Your task to perform on an android device: change keyboard looks Image 0: 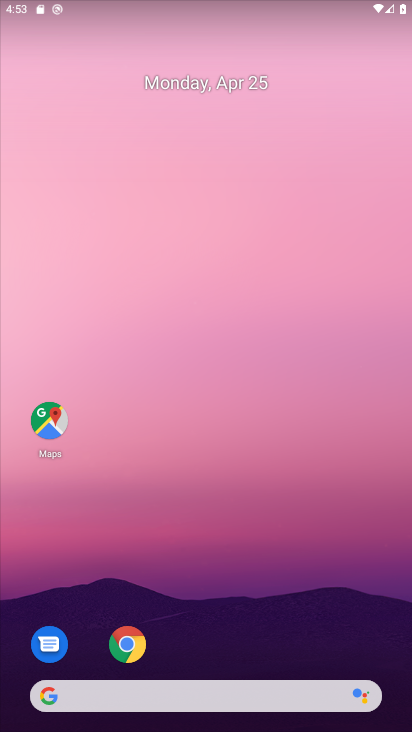
Step 0: drag from (249, 595) to (184, 68)
Your task to perform on an android device: change keyboard looks Image 1: 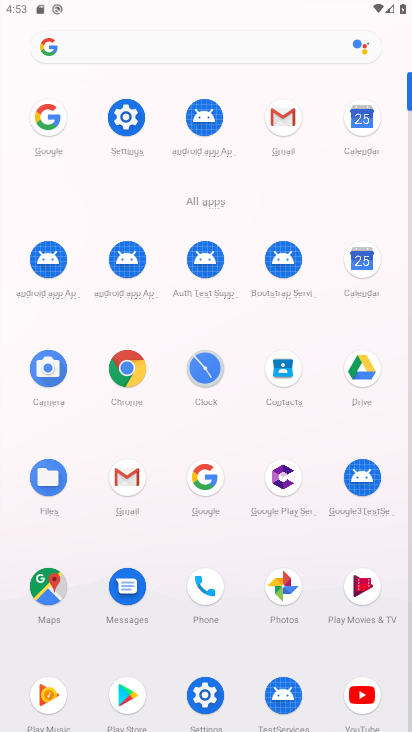
Step 1: click (124, 145)
Your task to perform on an android device: change keyboard looks Image 2: 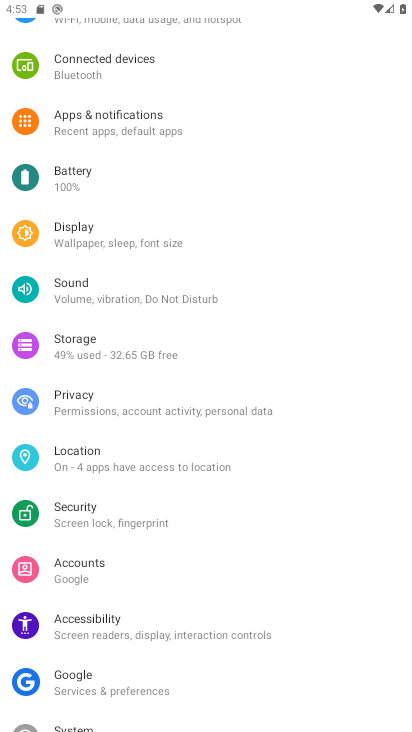
Step 2: drag from (206, 664) to (205, 132)
Your task to perform on an android device: change keyboard looks Image 3: 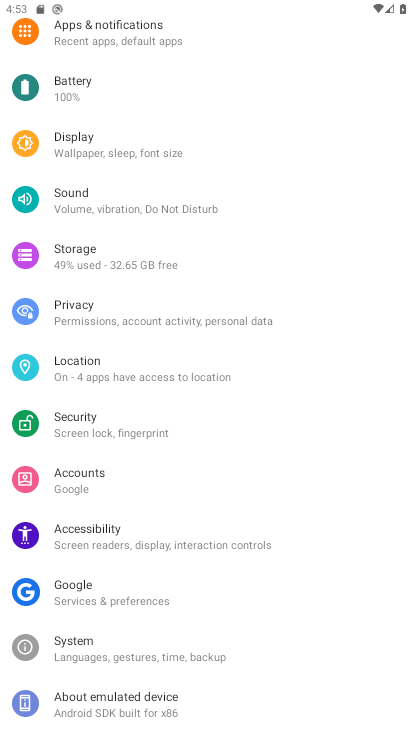
Step 3: click (106, 655)
Your task to perform on an android device: change keyboard looks Image 4: 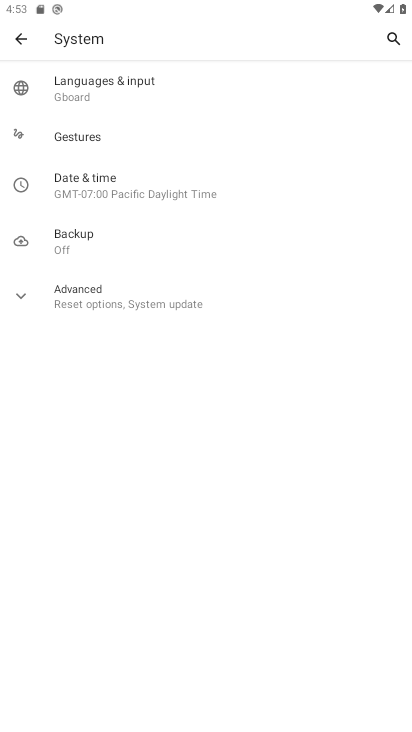
Step 4: click (167, 100)
Your task to perform on an android device: change keyboard looks Image 5: 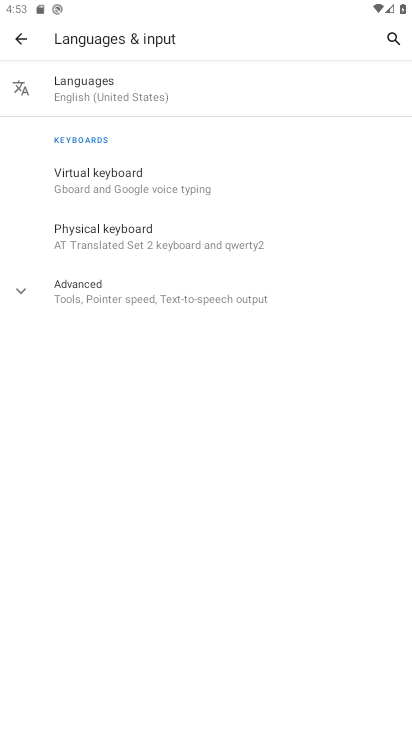
Step 5: click (127, 182)
Your task to perform on an android device: change keyboard looks Image 6: 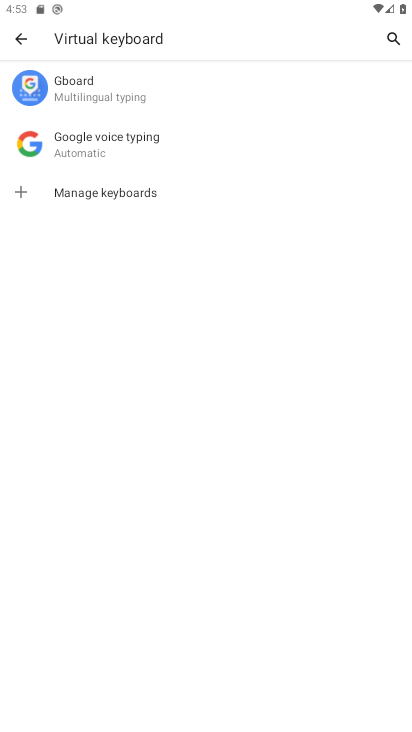
Step 6: click (174, 78)
Your task to perform on an android device: change keyboard looks Image 7: 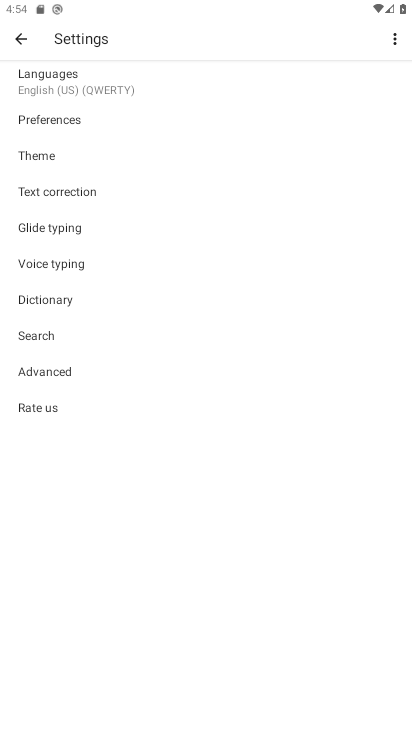
Step 7: click (81, 163)
Your task to perform on an android device: change keyboard looks Image 8: 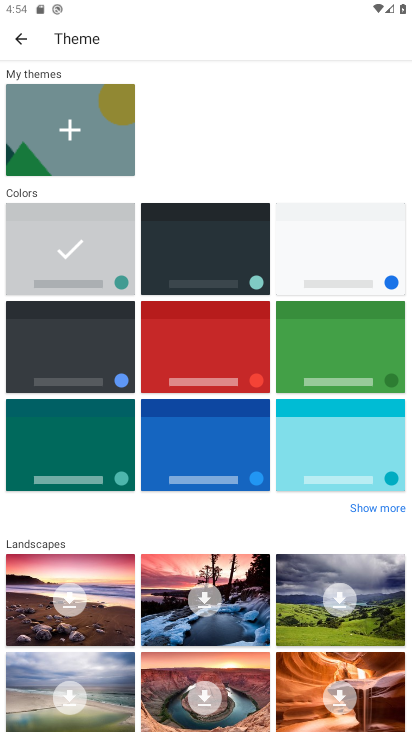
Step 8: click (199, 260)
Your task to perform on an android device: change keyboard looks Image 9: 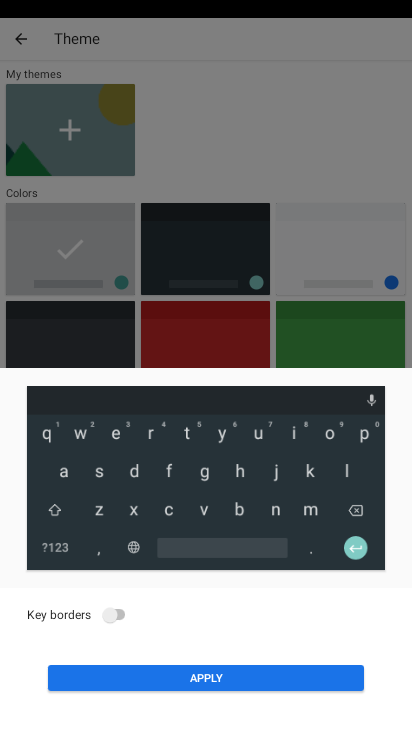
Step 9: click (200, 670)
Your task to perform on an android device: change keyboard looks Image 10: 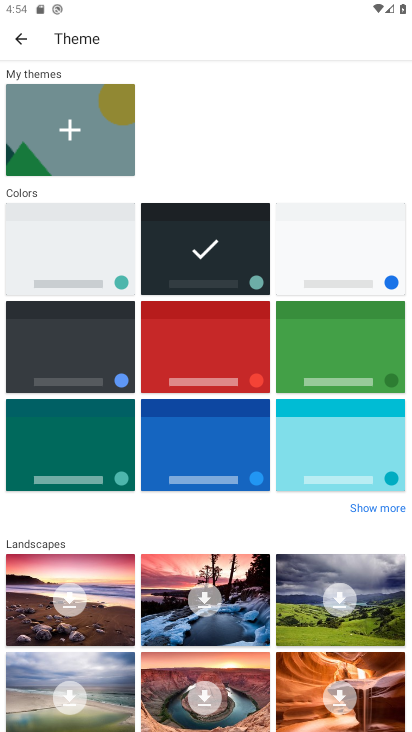
Step 10: task complete